Your task to perform on an android device: Search for a new lawnmower on Lowes. Image 0: 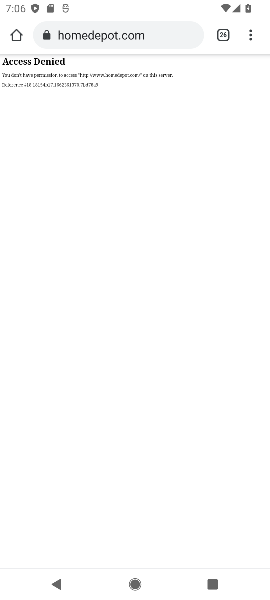
Step 0: press home button
Your task to perform on an android device: Search for a new lawnmower on Lowes. Image 1: 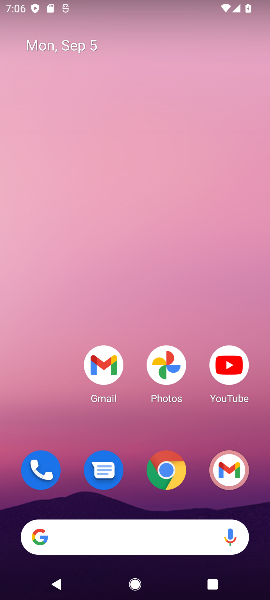
Step 1: click (113, 536)
Your task to perform on an android device: Search for a new lawnmower on Lowes. Image 2: 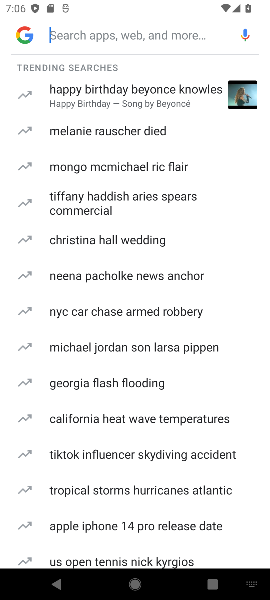
Step 2: type "lowes"
Your task to perform on an android device: Search for a new lawnmower on Lowes. Image 3: 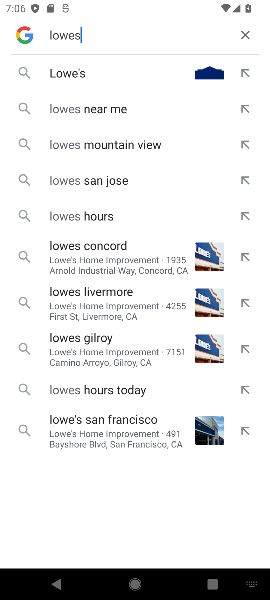
Step 3: click (73, 65)
Your task to perform on an android device: Search for a new lawnmower on Lowes. Image 4: 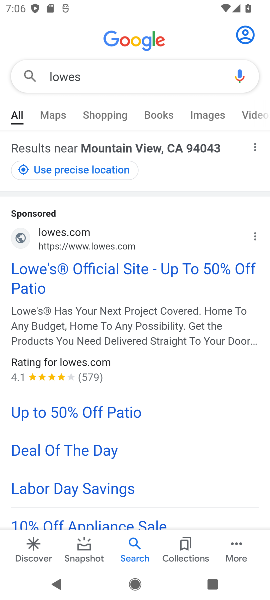
Step 4: click (94, 265)
Your task to perform on an android device: Search for a new lawnmower on Lowes. Image 5: 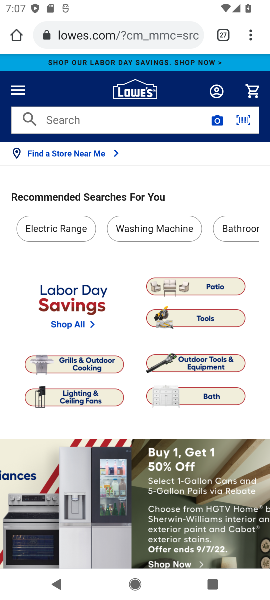
Step 5: click (87, 117)
Your task to perform on an android device: Search for a new lawnmower on Lowes. Image 6: 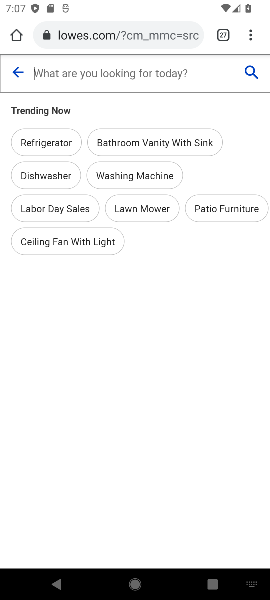
Step 6: type "new lawnmower"
Your task to perform on an android device: Search for a new lawnmower on Lowes. Image 7: 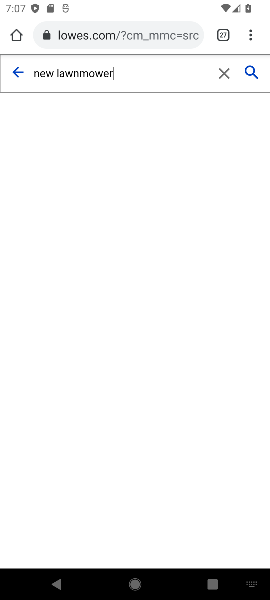
Step 7: click (247, 71)
Your task to perform on an android device: Search for a new lawnmower on Lowes. Image 8: 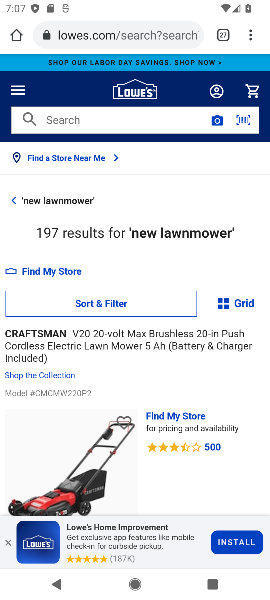
Step 8: task complete